Your task to perform on an android device: turn off priority inbox in the gmail app Image 0: 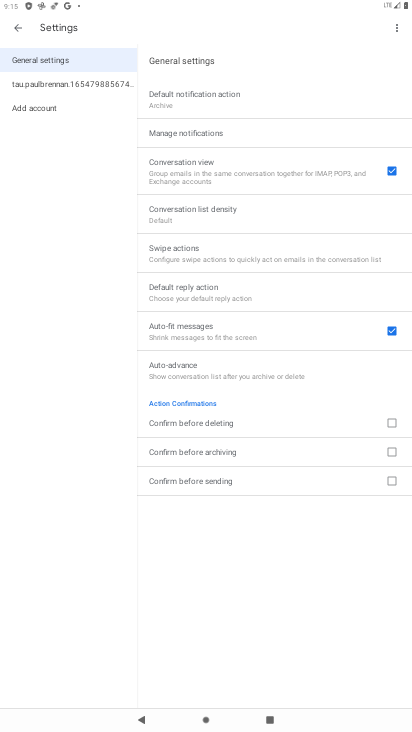
Step 0: press home button
Your task to perform on an android device: turn off priority inbox in the gmail app Image 1: 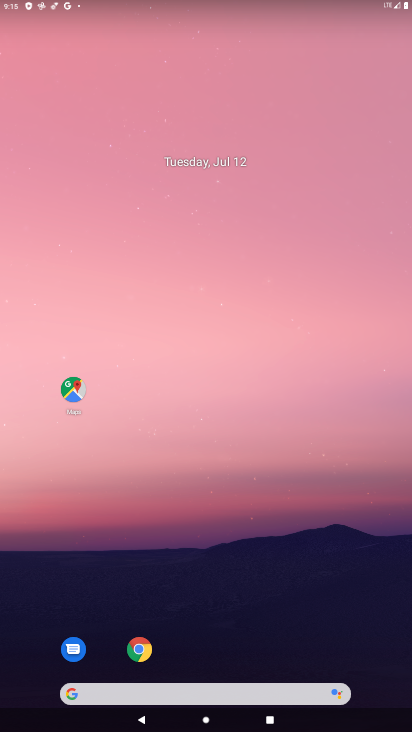
Step 1: drag from (321, 598) to (358, 215)
Your task to perform on an android device: turn off priority inbox in the gmail app Image 2: 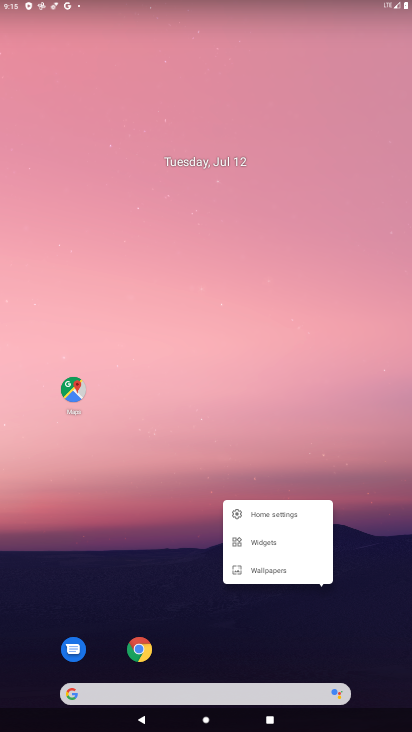
Step 2: click (199, 479)
Your task to perform on an android device: turn off priority inbox in the gmail app Image 3: 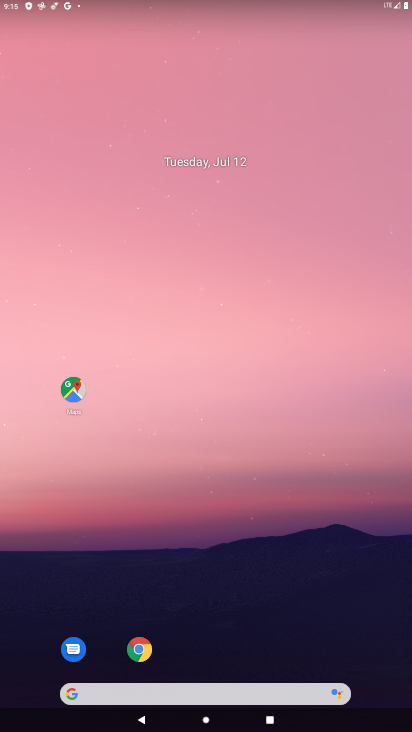
Step 3: drag from (216, 635) to (149, 91)
Your task to perform on an android device: turn off priority inbox in the gmail app Image 4: 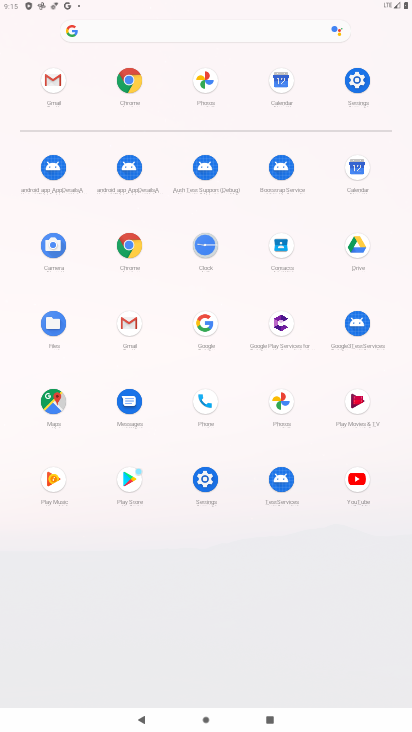
Step 4: click (132, 337)
Your task to perform on an android device: turn off priority inbox in the gmail app Image 5: 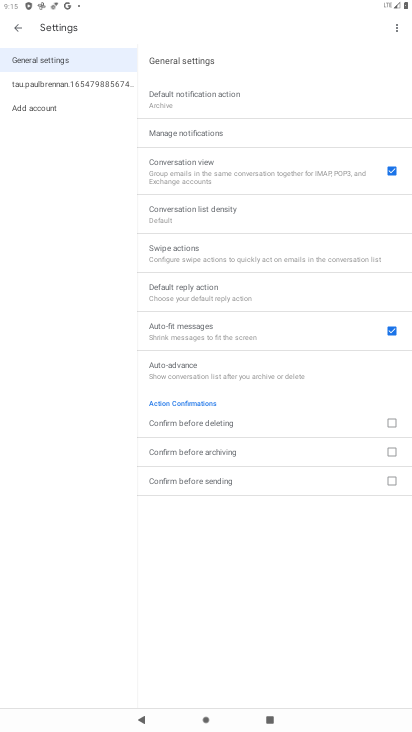
Step 5: click (119, 93)
Your task to perform on an android device: turn off priority inbox in the gmail app Image 6: 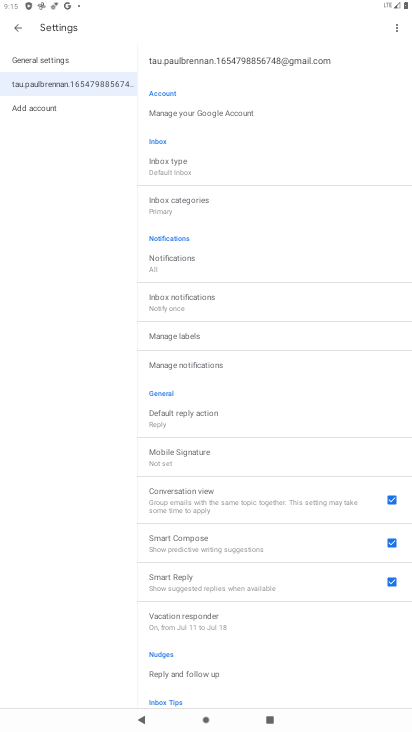
Step 6: task complete